Your task to perform on an android device: turn on priority inbox in the gmail app Image 0: 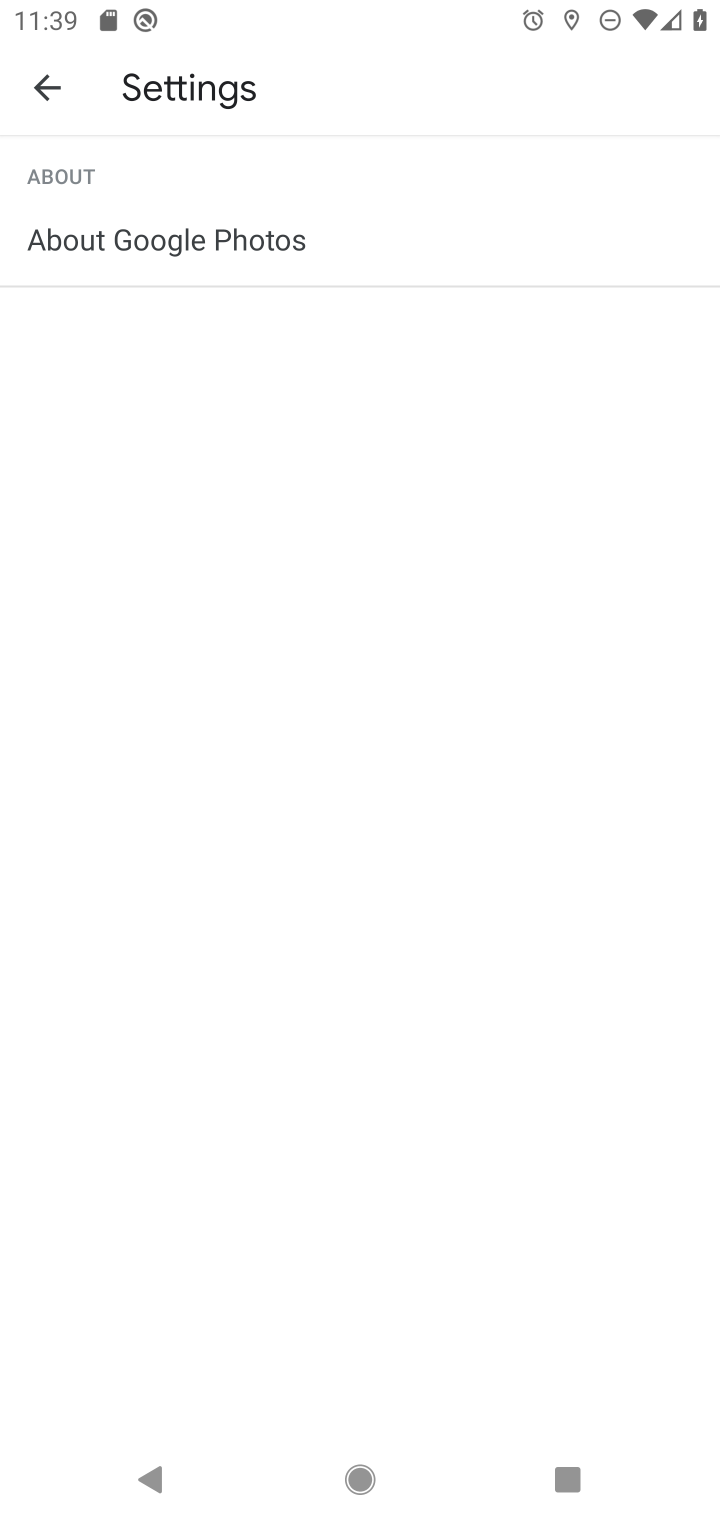
Step 0: press home button
Your task to perform on an android device: turn on priority inbox in the gmail app Image 1: 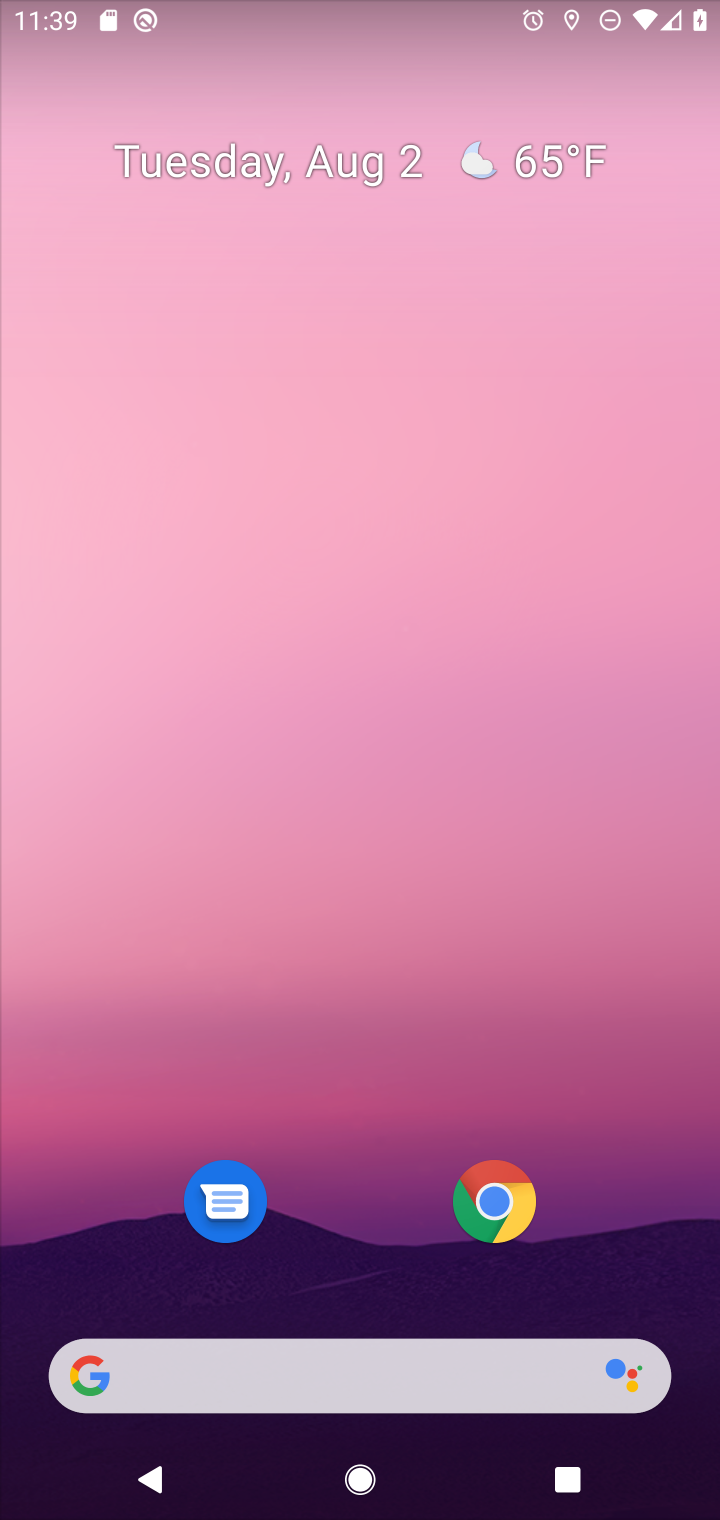
Step 1: drag from (272, 1316) to (248, 97)
Your task to perform on an android device: turn on priority inbox in the gmail app Image 2: 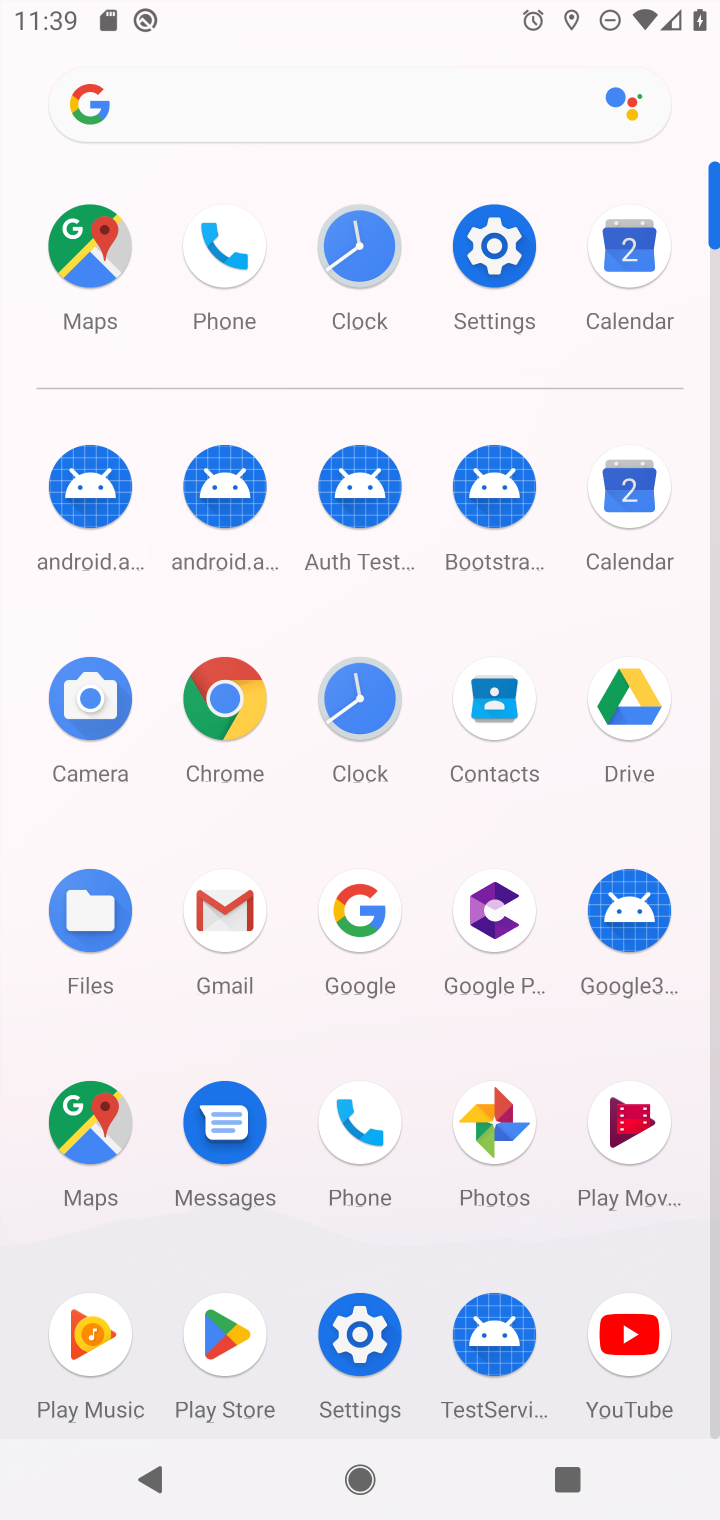
Step 2: click (247, 977)
Your task to perform on an android device: turn on priority inbox in the gmail app Image 3: 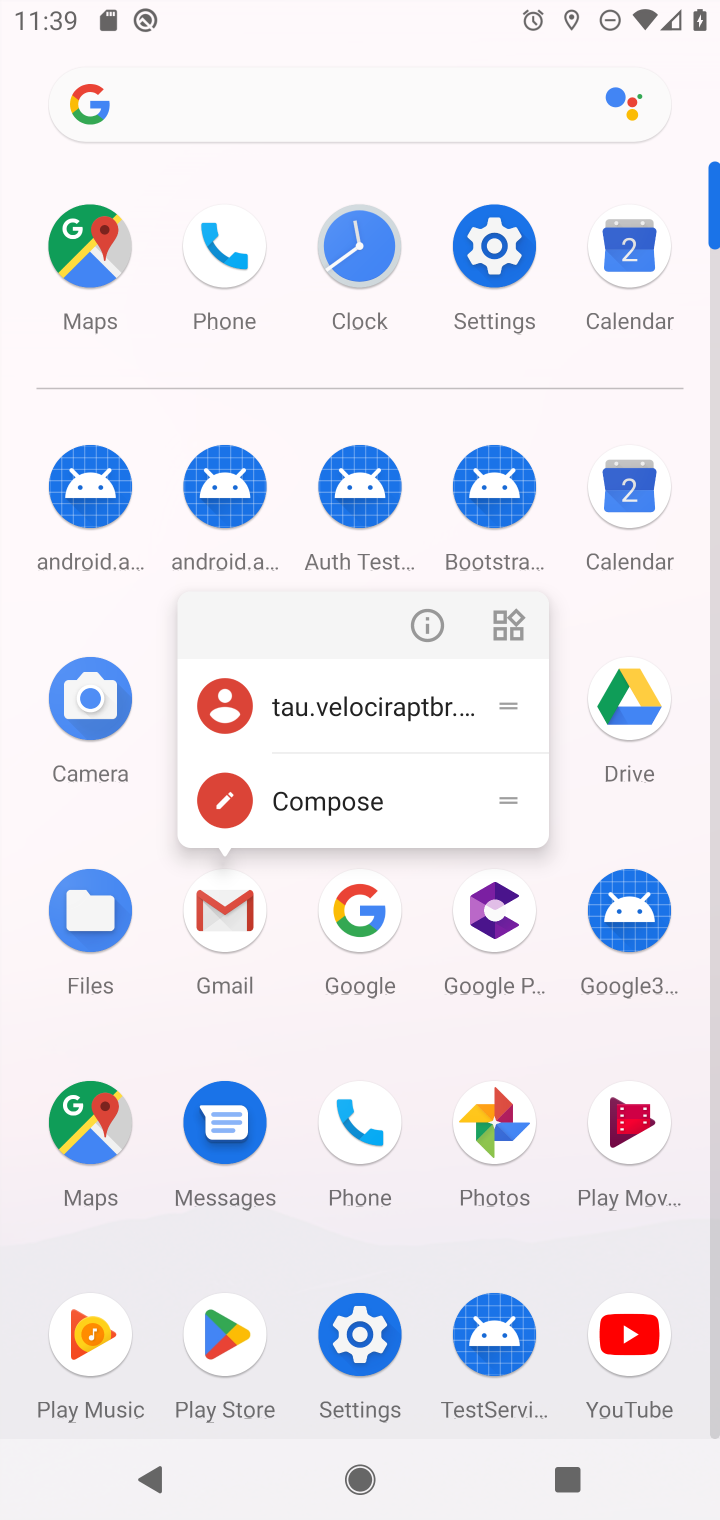
Step 3: click (257, 926)
Your task to perform on an android device: turn on priority inbox in the gmail app Image 4: 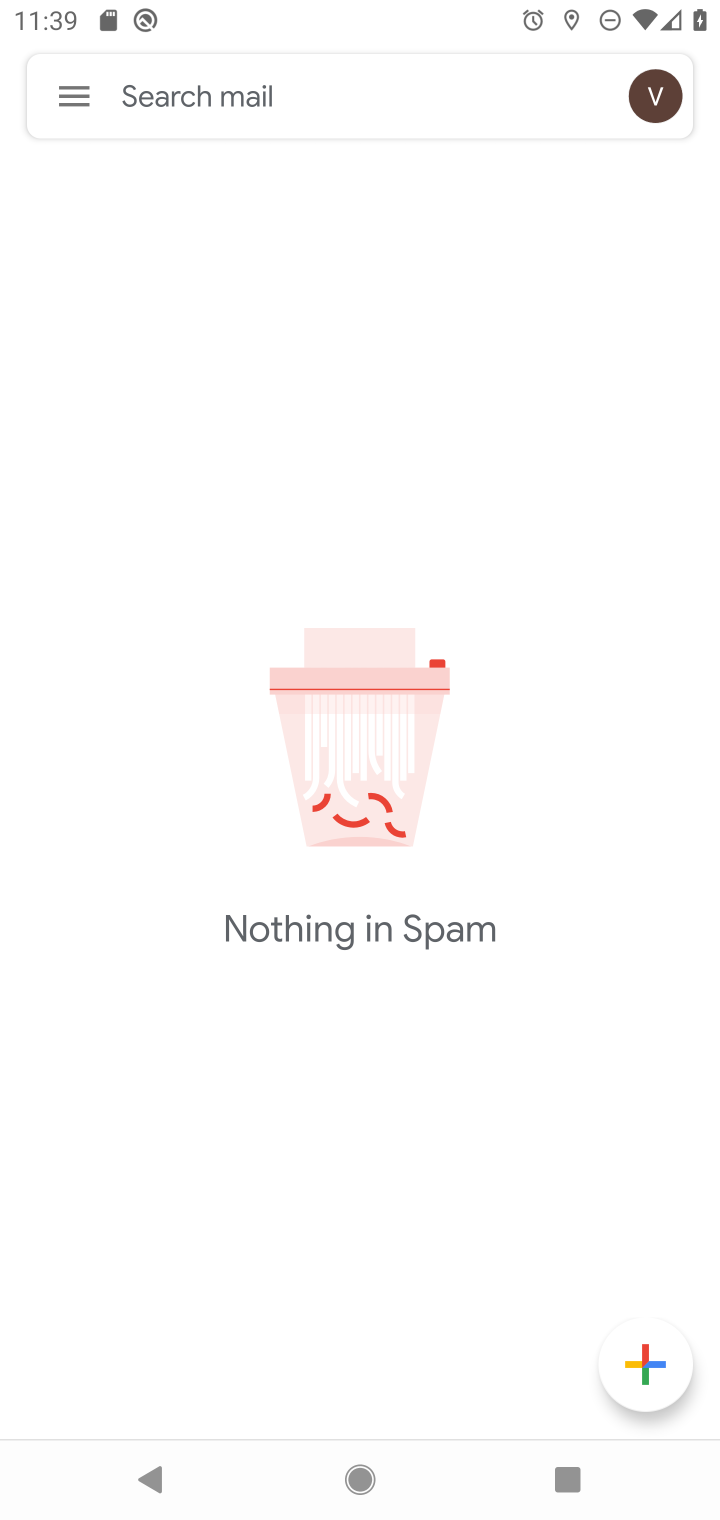
Step 4: click (82, 100)
Your task to perform on an android device: turn on priority inbox in the gmail app Image 5: 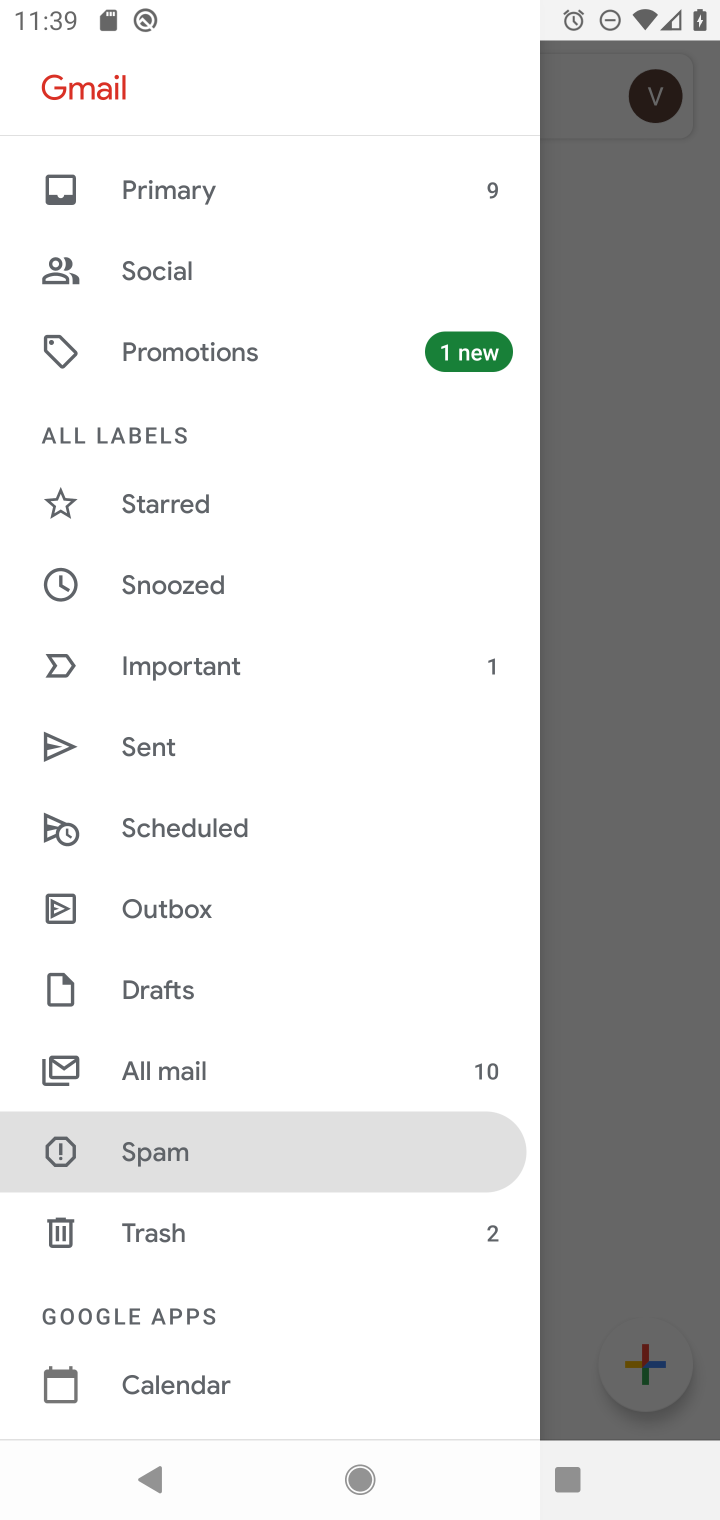
Step 5: drag from (214, 1339) to (268, 113)
Your task to perform on an android device: turn on priority inbox in the gmail app Image 6: 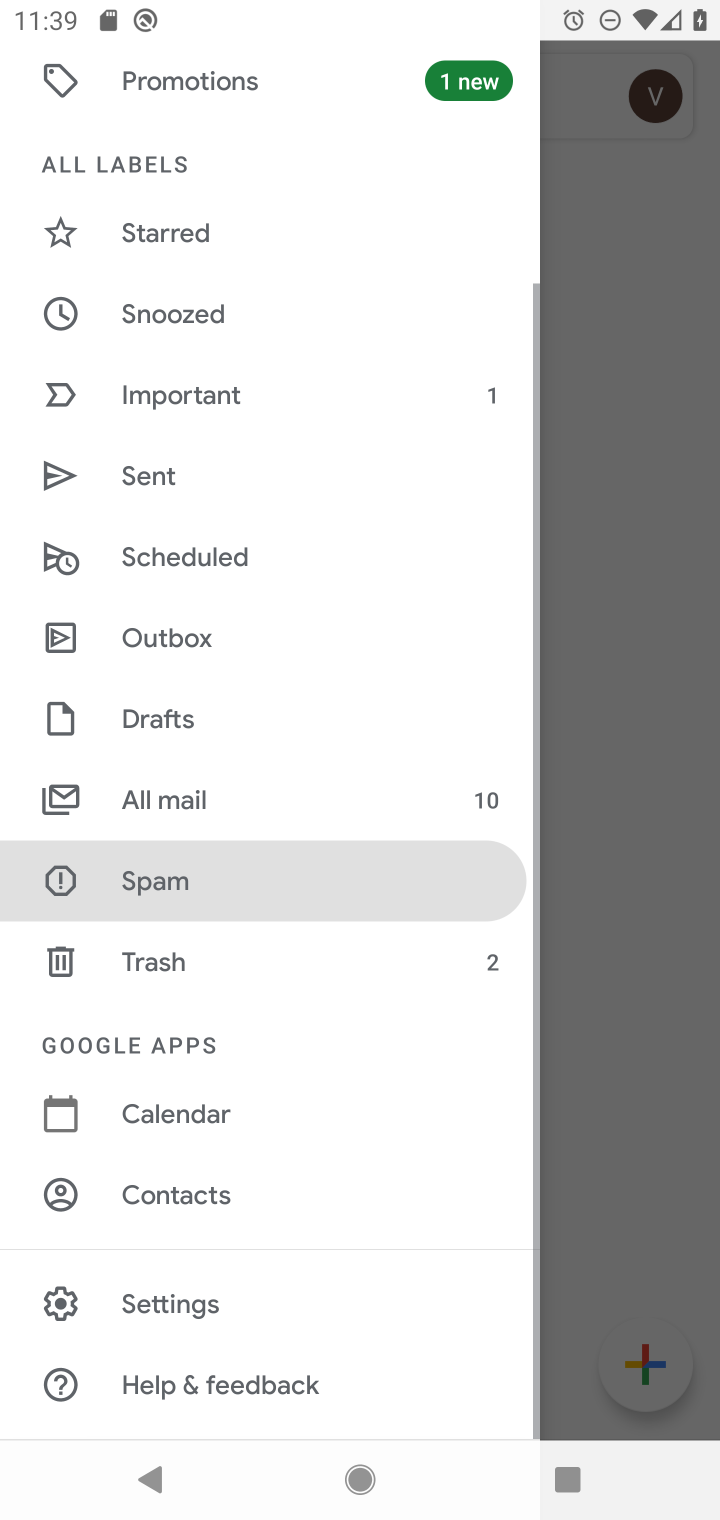
Step 6: click (202, 1306)
Your task to perform on an android device: turn on priority inbox in the gmail app Image 7: 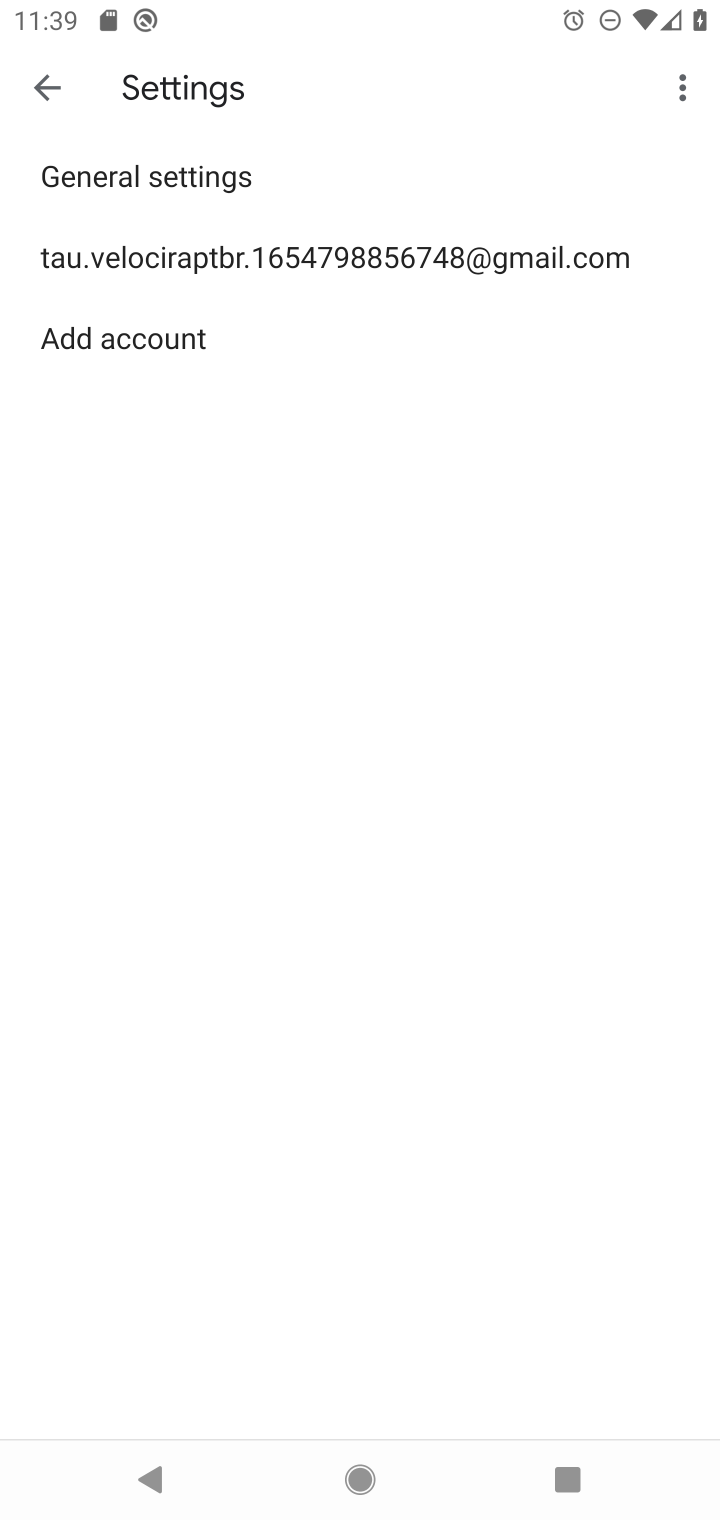
Step 7: click (111, 257)
Your task to perform on an android device: turn on priority inbox in the gmail app Image 8: 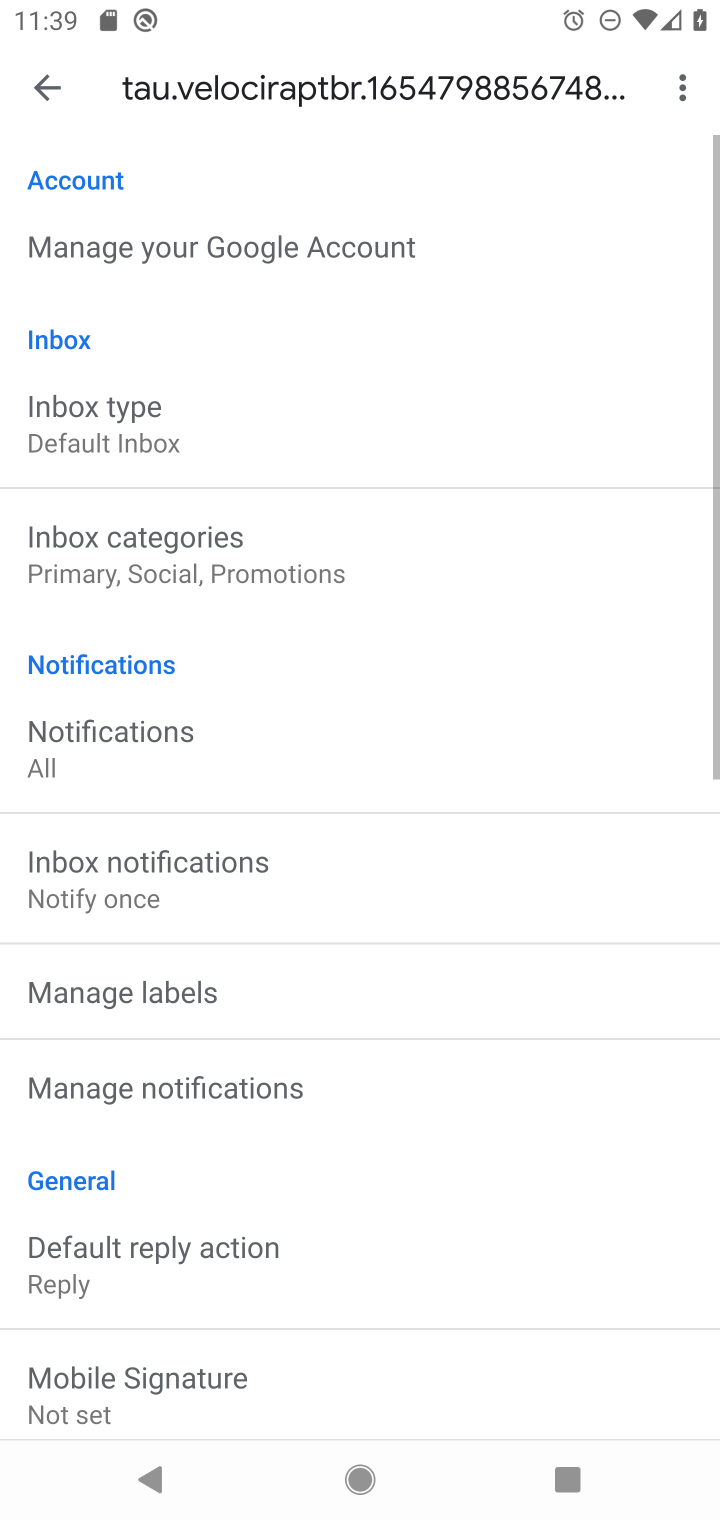
Step 8: click (112, 437)
Your task to perform on an android device: turn on priority inbox in the gmail app Image 9: 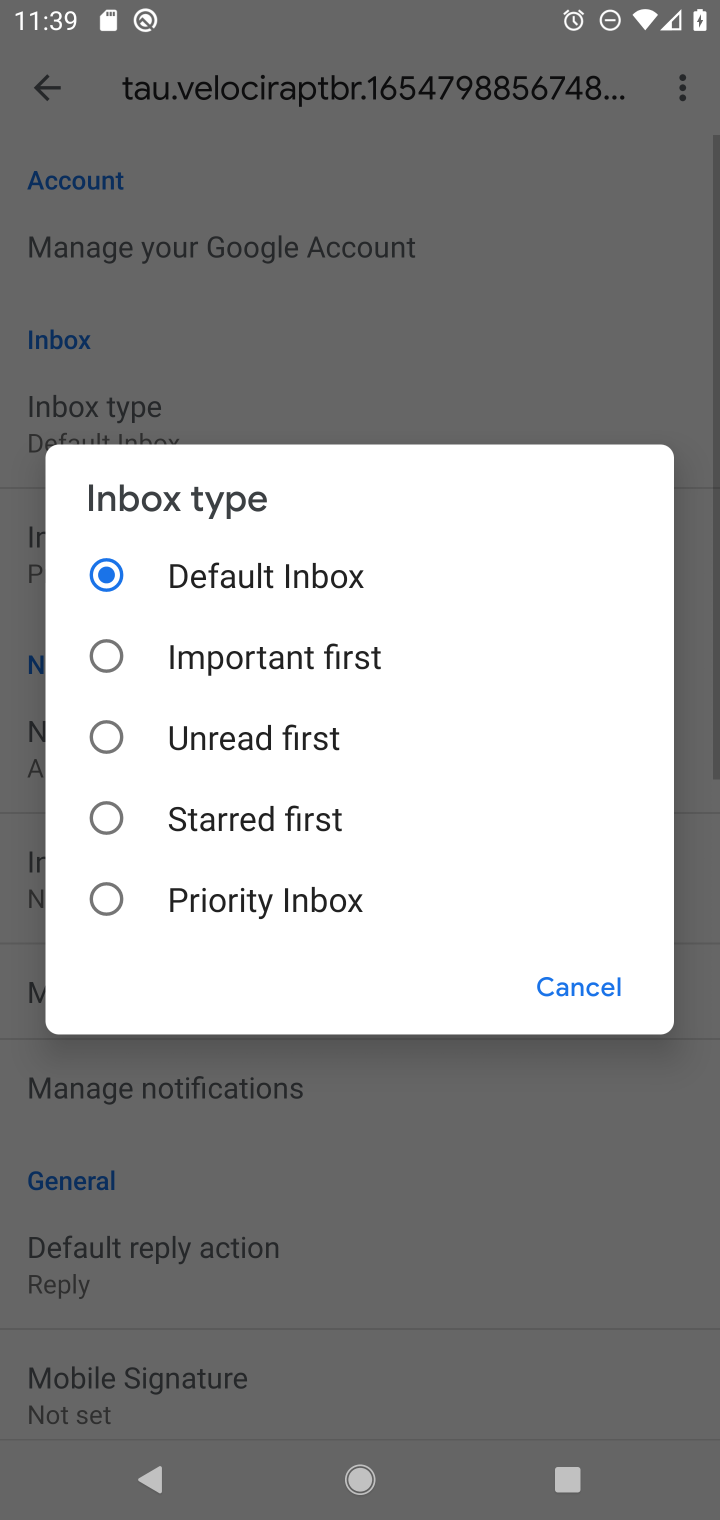
Step 9: click (186, 879)
Your task to perform on an android device: turn on priority inbox in the gmail app Image 10: 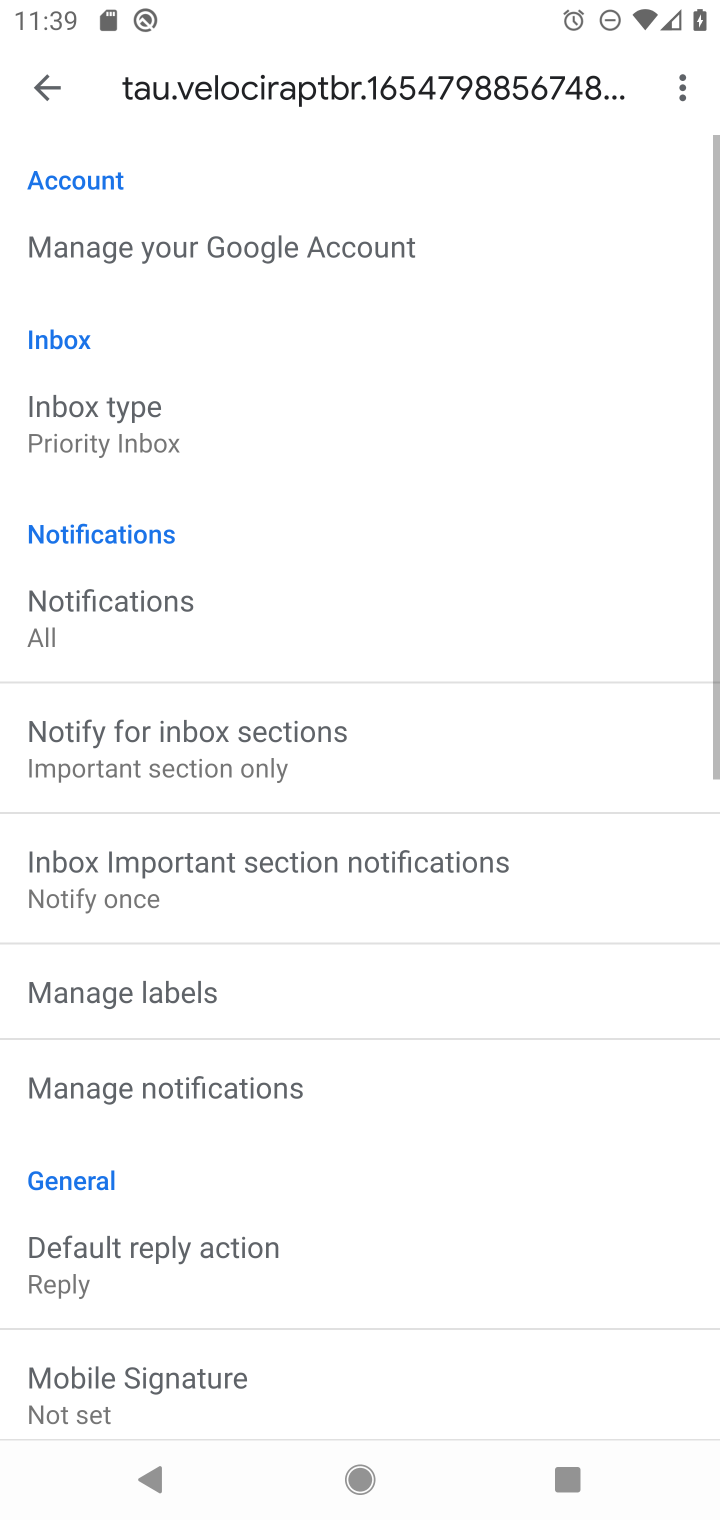
Step 10: task complete